Your task to perform on an android device: Go to calendar. Show me events next week Image 0: 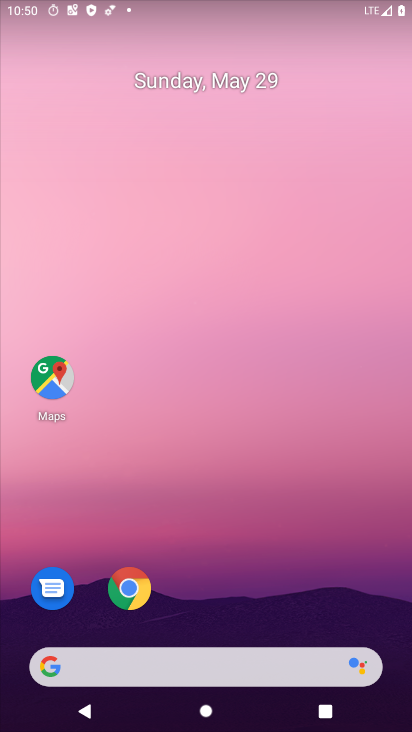
Step 0: drag from (272, 604) to (165, 4)
Your task to perform on an android device: Go to calendar. Show me events next week Image 1: 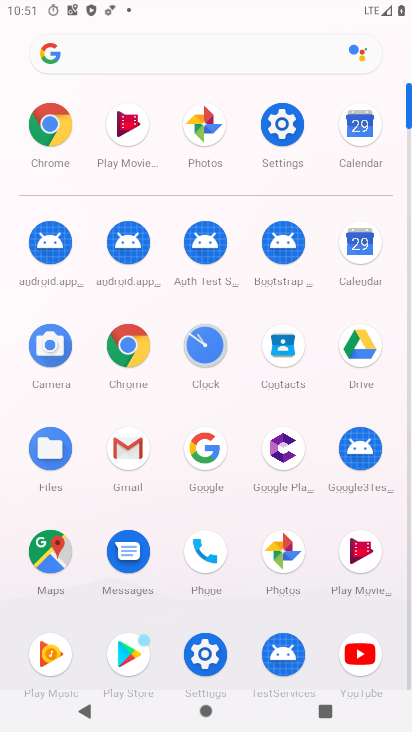
Step 1: click (350, 235)
Your task to perform on an android device: Go to calendar. Show me events next week Image 2: 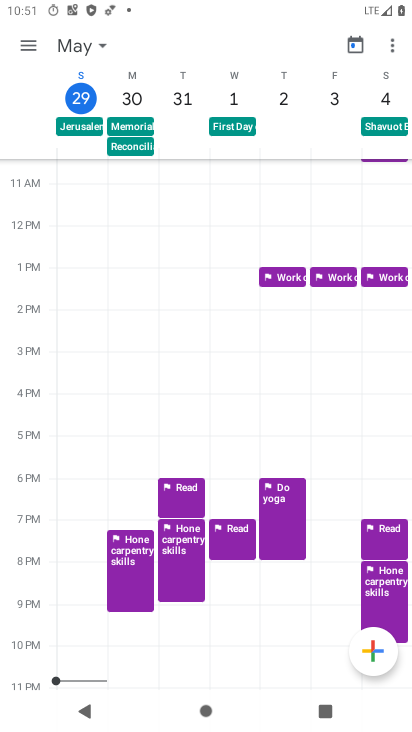
Step 2: task complete